Your task to perform on an android device: remove spam from my inbox in the gmail app Image 0: 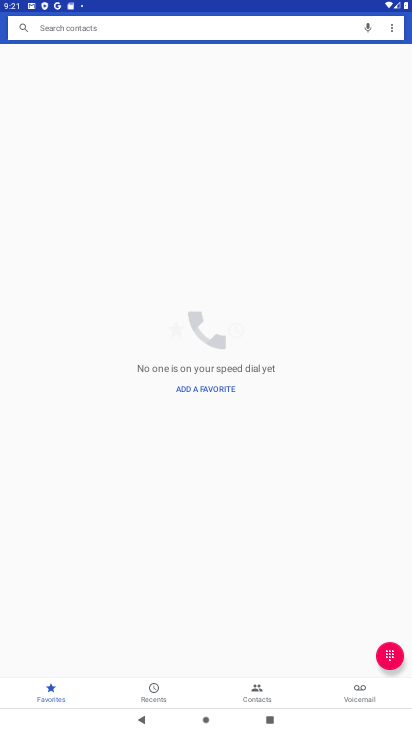
Step 0: press home button
Your task to perform on an android device: remove spam from my inbox in the gmail app Image 1: 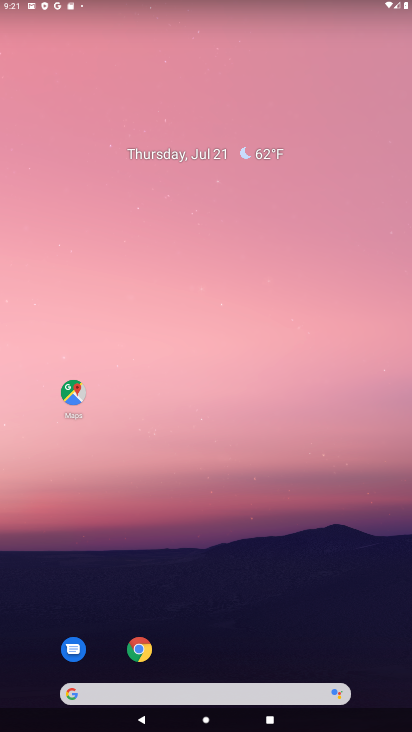
Step 1: drag from (191, 688) to (331, 105)
Your task to perform on an android device: remove spam from my inbox in the gmail app Image 2: 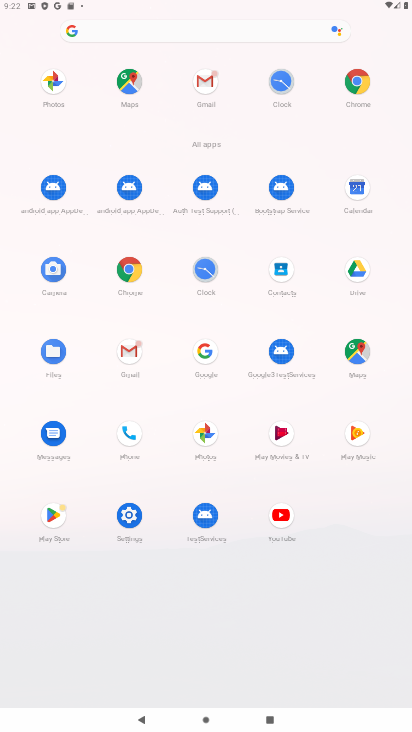
Step 2: click (205, 76)
Your task to perform on an android device: remove spam from my inbox in the gmail app Image 3: 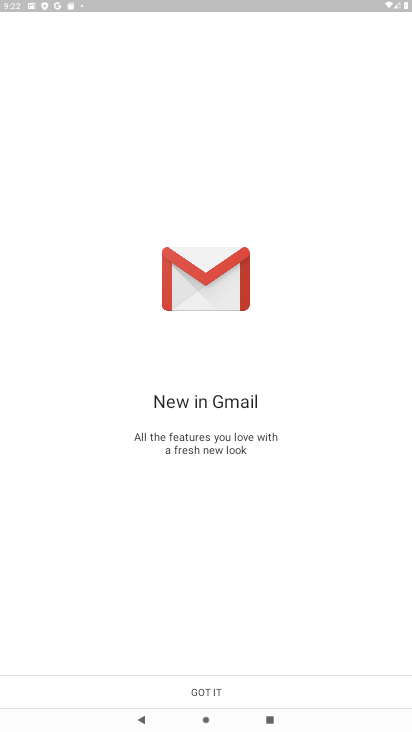
Step 3: click (209, 690)
Your task to perform on an android device: remove spam from my inbox in the gmail app Image 4: 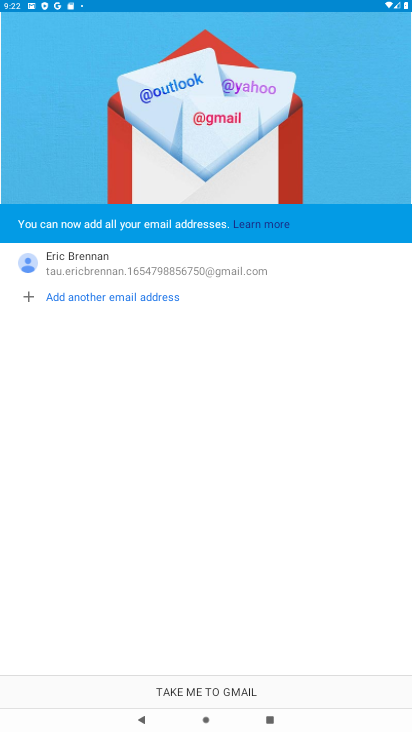
Step 4: click (231, 690)
Your task to perform on an android device: remove spam from my inbox in the gmail app Image 5: 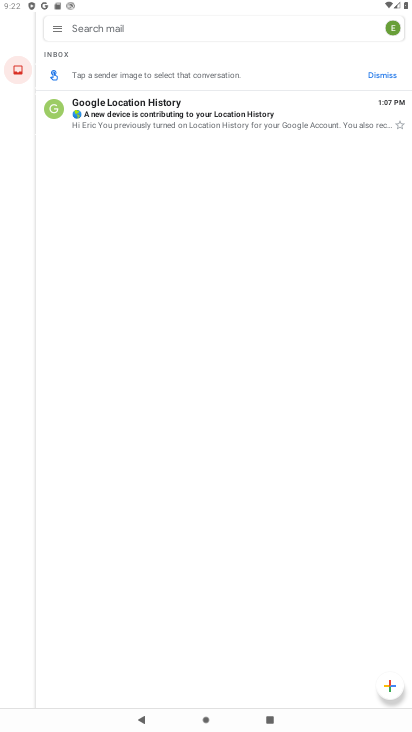
Step 5: click (58, 29)
Your task to perform on an android device: remove spam from my inbox in the gmail app Image 6: 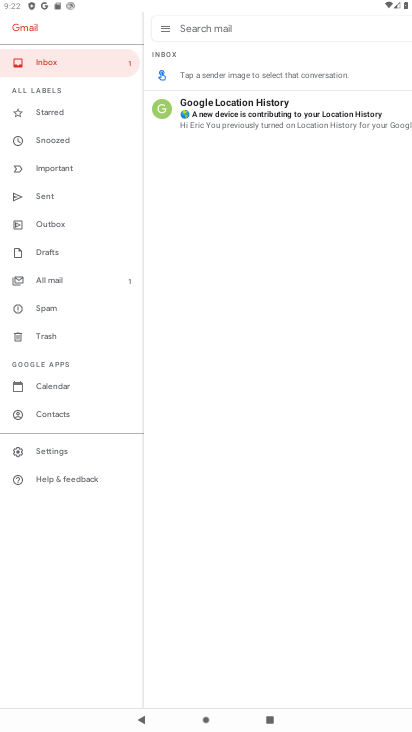
Step 6: click (55, 304)
Your task to perform on an android device: remove spam from my inbox in the gmail app Image 7: 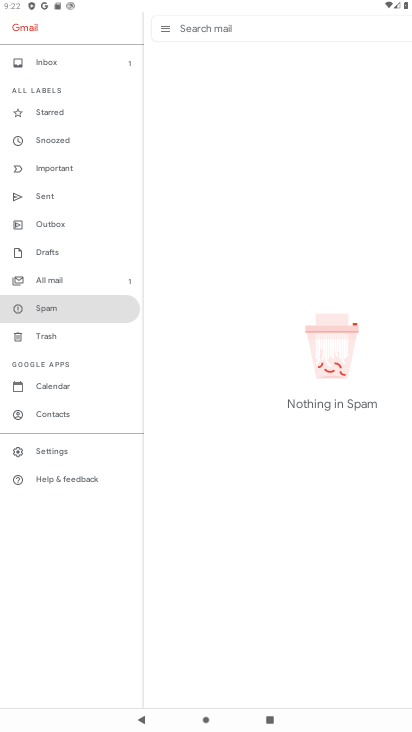
Step 7: task complete